Your task to perform on an android device: delete a single message in the gmail app Image 0: 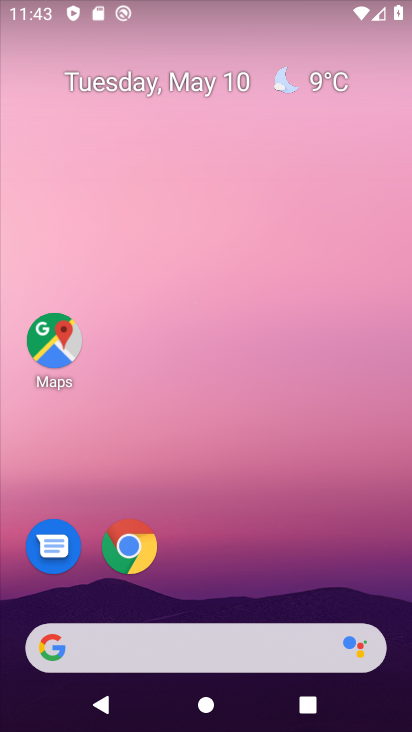
Step 0: drag from (205, 544) to (310, 144)
Your task to perform on an android device: delete a single message in the gmail app Image 1: 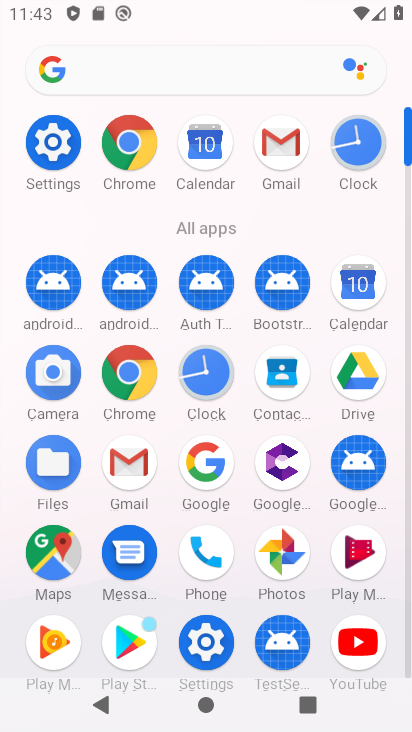
Step 1: click (271, 142)
Your task to perform on an android device: delete a single message in the gmail app Image 2: 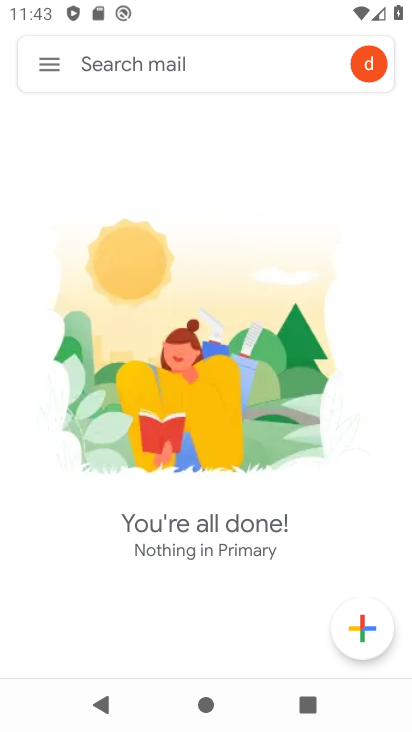
Step 2: task complete